Your task to perform on an android device: set an alarm Image 0: 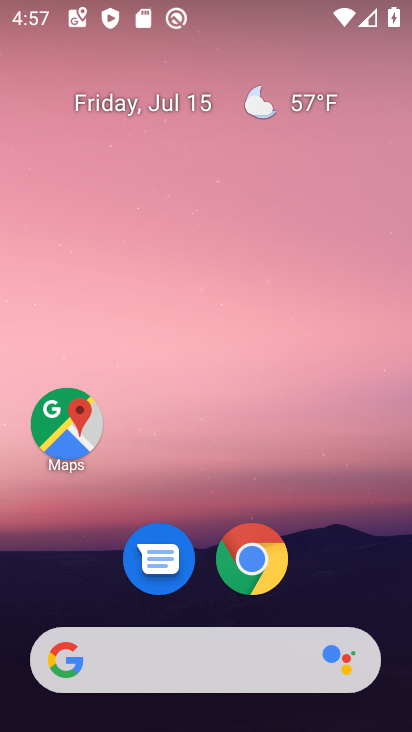
Step 0: drag from (56, 599) to (247, 1)
Your task to perform on an android device: set an alarm Image 1: 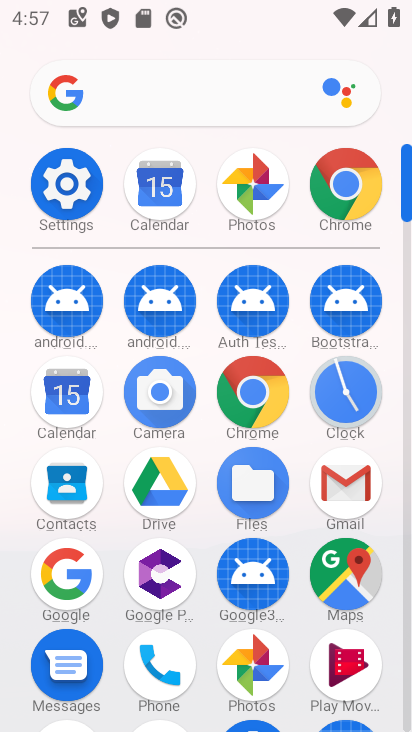
Step 1: click (346, 391)
Your task to perform on an android device: set an alarm Image 2: 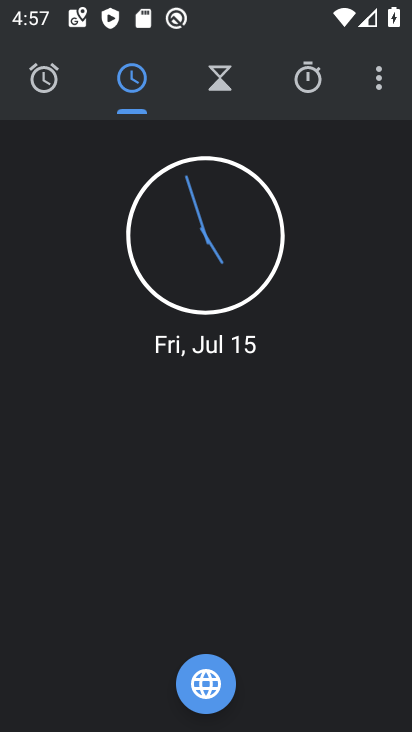
Step 2: click (36, 87)
Your task to perform on an android device: set an alarm Image 3: 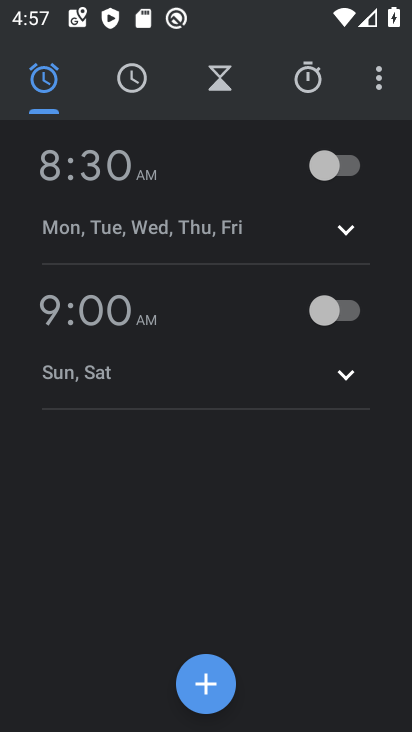
Step 3: click (316, 166)
Your task to perform on an android device: set an alarm Image 4: 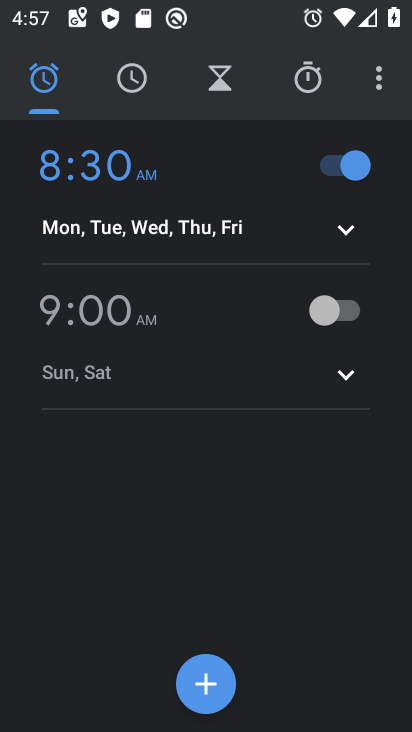
Step 4: task complete